Your task to perform on an android device: change the clock display to analog Image 0: 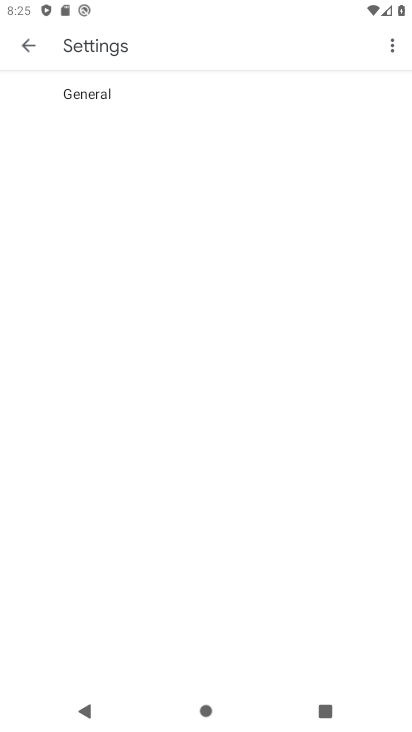
Step 0: press home button
Your task to perform on an android device: change the clock display to analog Image 1: 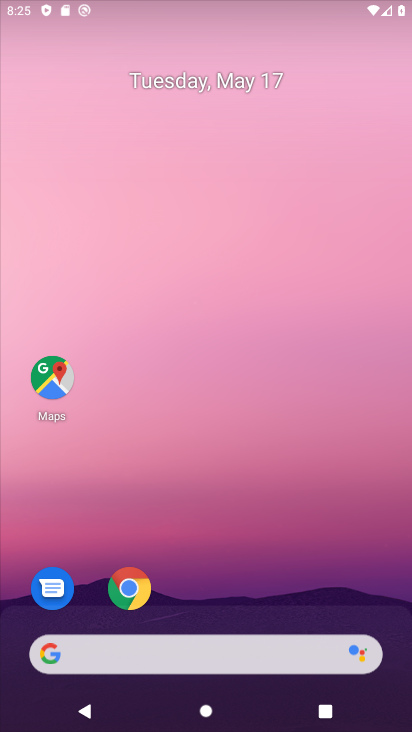
Step 1: drag from (243, 719) to (220, 292)
Your task to perform on an android device: change the clock display to analog Image 2: 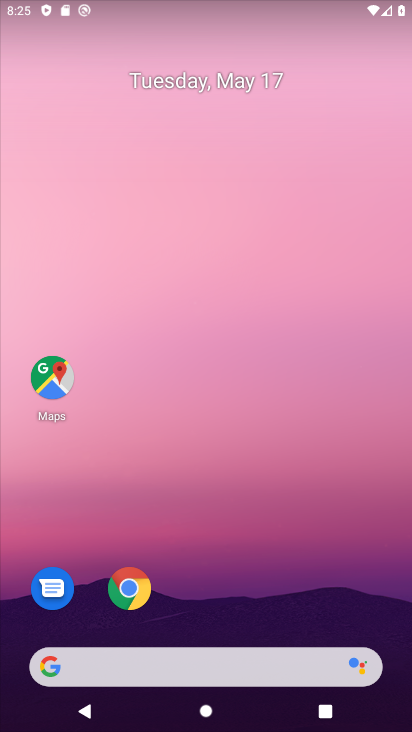
Step 2: drag from (260, 696) to (299, 104)
Your task to perform on an android device: change the clock display to analog Image 3: 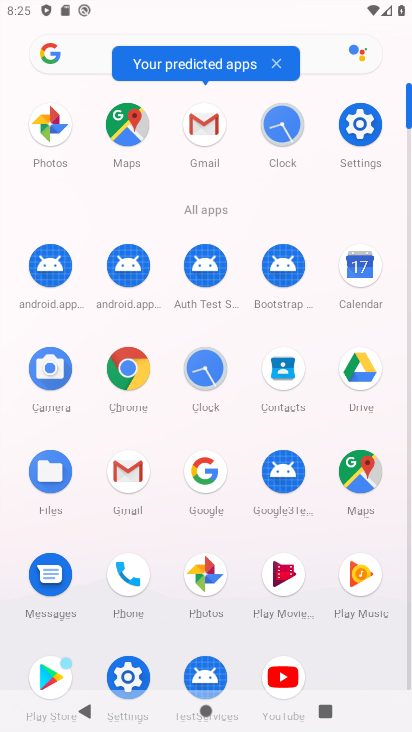
Step 3: click (200, 375)
Your task to perform on an android device: change the clock display to analog Image 4: 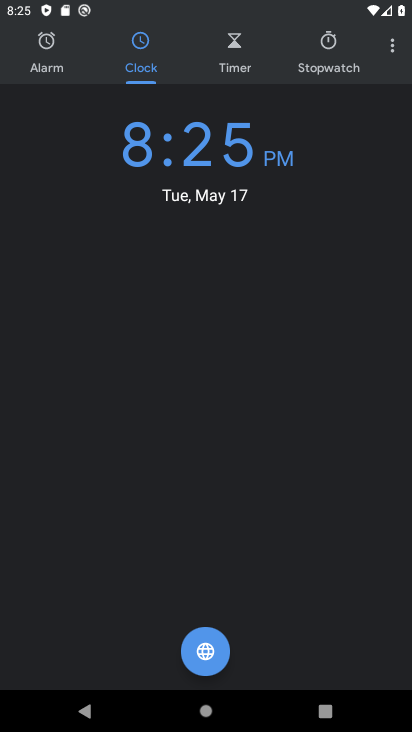
Step 4: click (386, 47)
Your task to perform on an android device: change the clock display to analog Image 5: 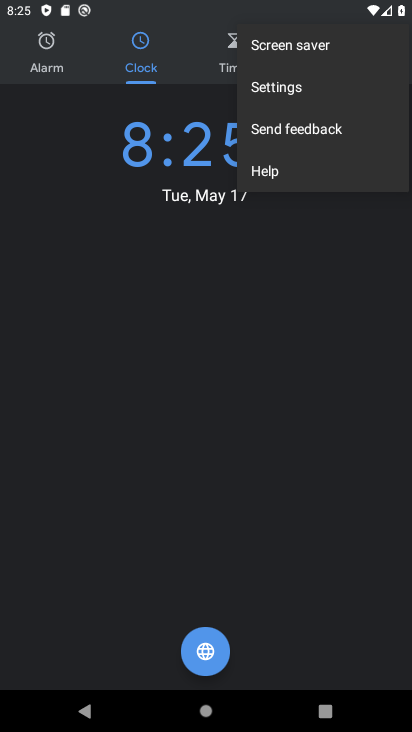
Step 5: click (304, 97)
Your task to perform on an android device: change the clock display to analog Image 6: 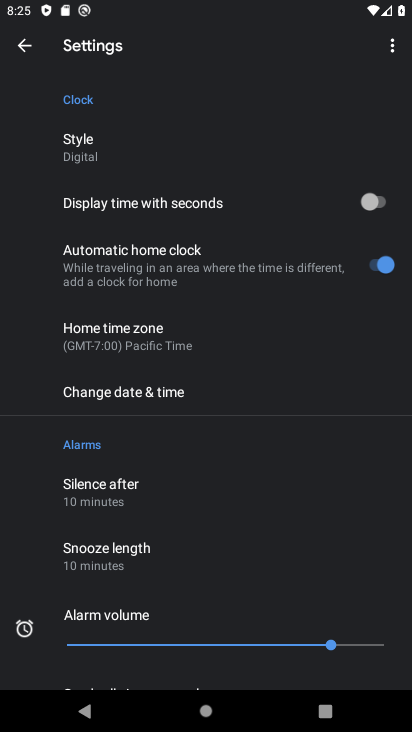
Step 6: click (236, 151)
Your task to perform on an android device: change the clock display to analog Image 7: 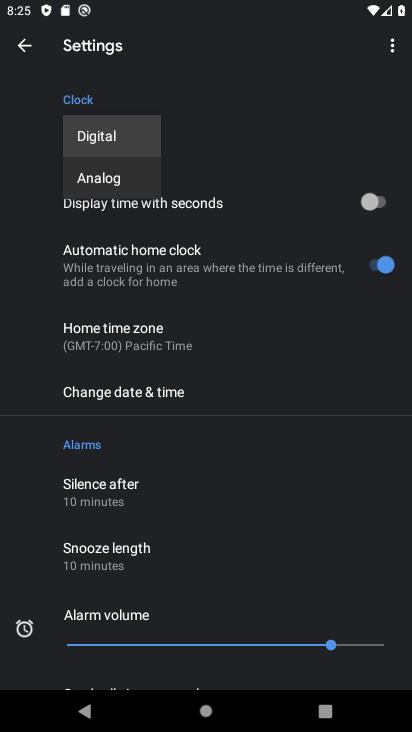
Step 7: click (135, 177)
Your task to perform on an android device: change the clock display to analog Image 8: 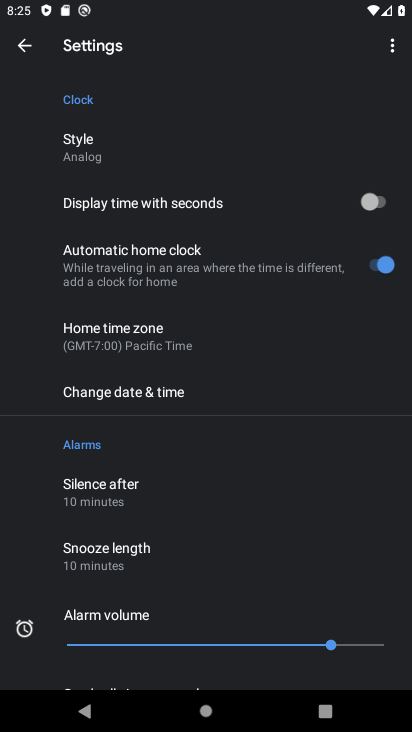
Step 8: task complete